Your task to perform on an android device: change the clock style Image 0: 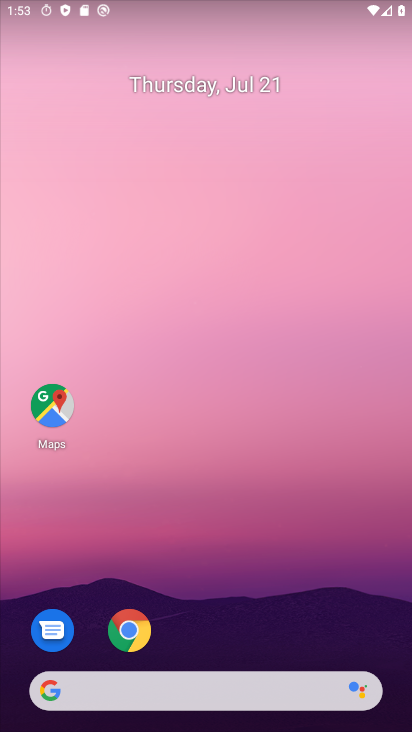
Step 0: drag from (195, 648) to (254, 131)
Your task to perform on an android device: change the clock style Image 1: 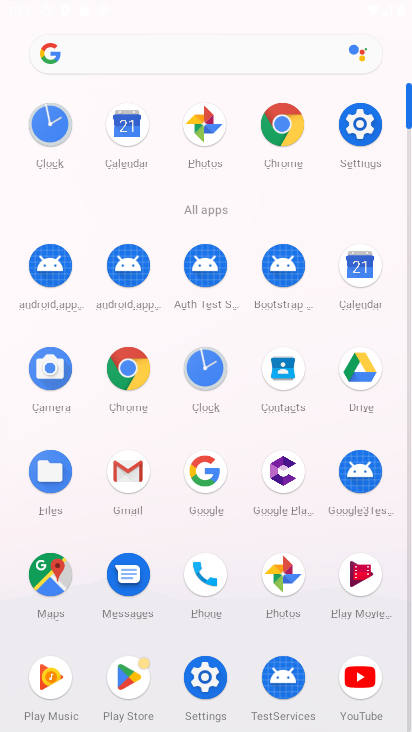
Step 1: click (208, 370)
Your task to perform on an android device: change the clock style Image 2: 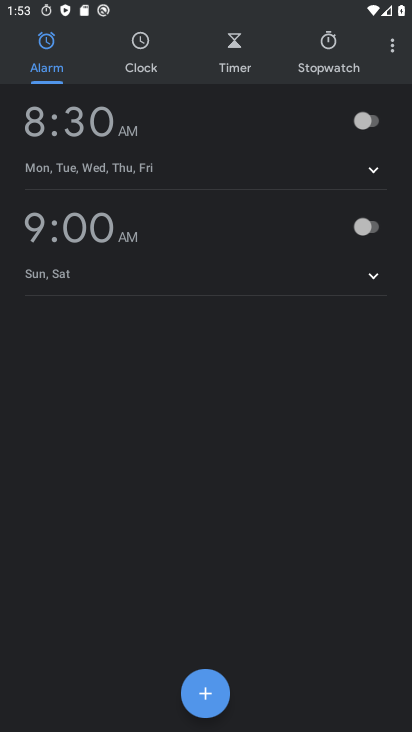
Step 2: click (383, 47)
Your task to perform on an android device: change the clock style Image 3: 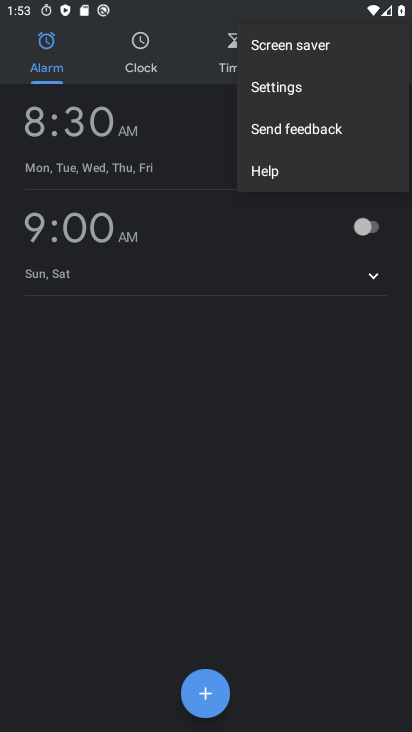
Step 3: click (285, 89)
Your task to perform on an android device: change the clock style Image 4: 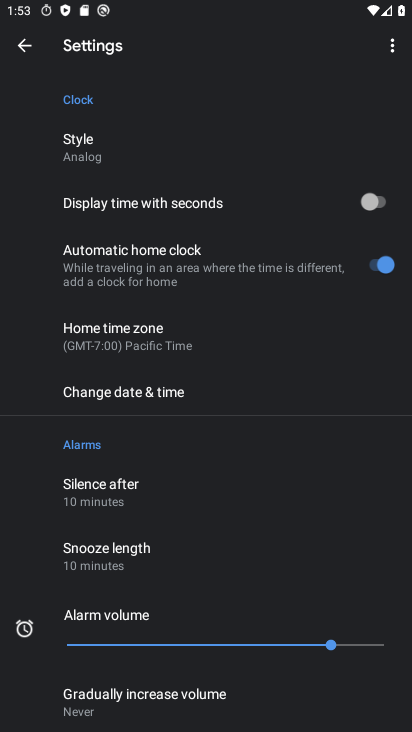
Step 4: click (122, 146)
Your task to perform on an android device: change the clock style Image 5: 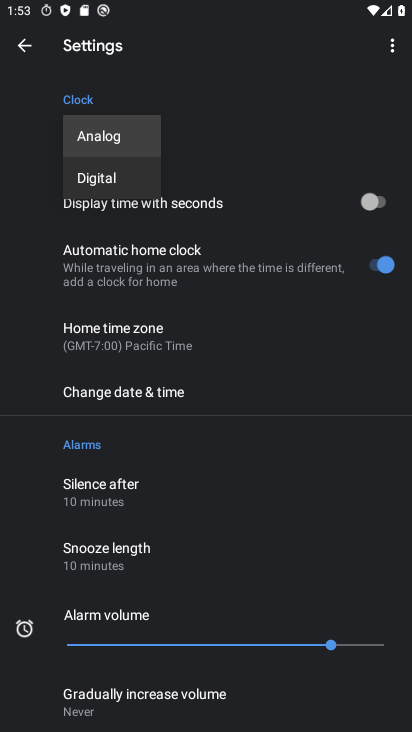
Step 5: click (108, 177)
Your task to perform on an android device: change the clock style Image 6: 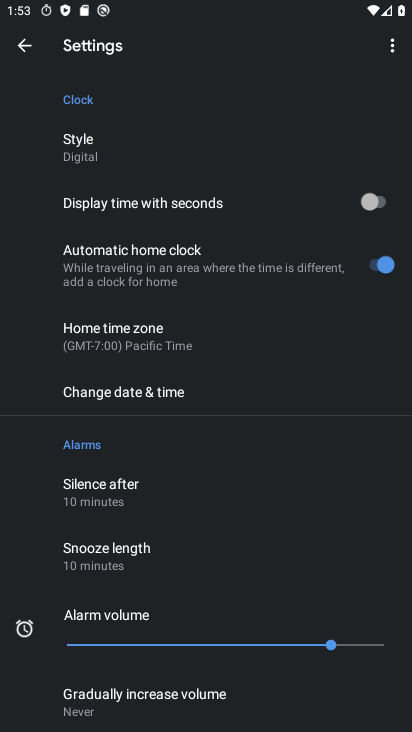
Step 6: task complete